Your task to perform on an android device: What's on my calendar today? Image 0: 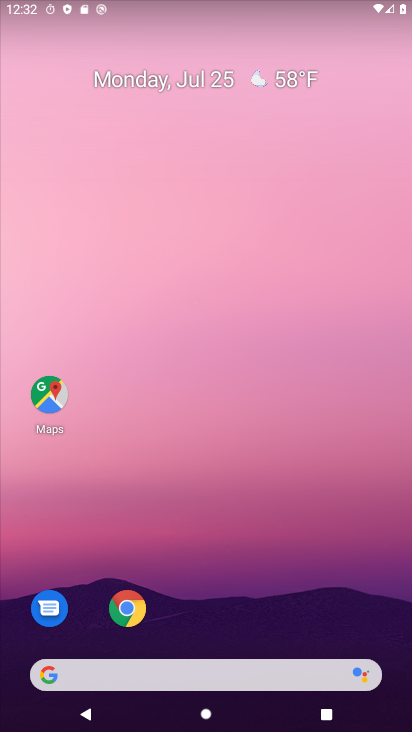
Step 0: drag from (278, 131) to (237, 1)
Your task to perform on an android device: What's on my calendar today? Image 1: 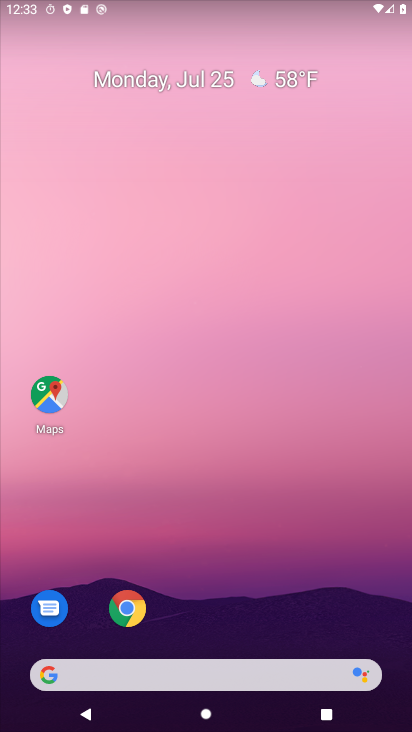
Step 1: drag from (244, 563) to (264, 49)
Your task to perform on an android device: What's on my calendar today? Image 2: 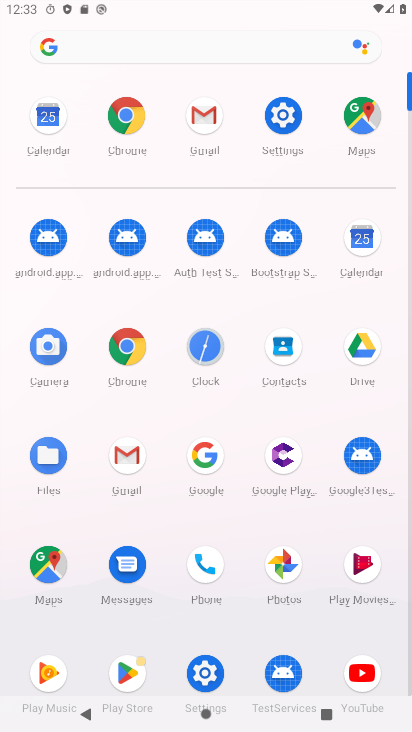
Step 2: click (361, 240)
Your task to perform on an android device: What's on my calendar today? Image 3: 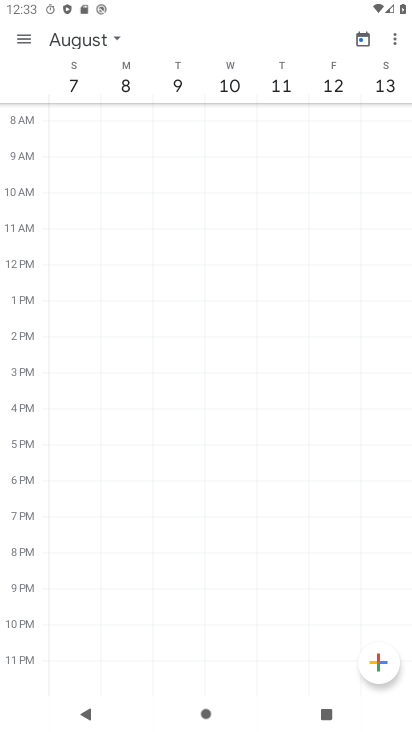
Step 3: click (111, 45)
Your task to perform on an android device: What's on my calendar today? Image 4: 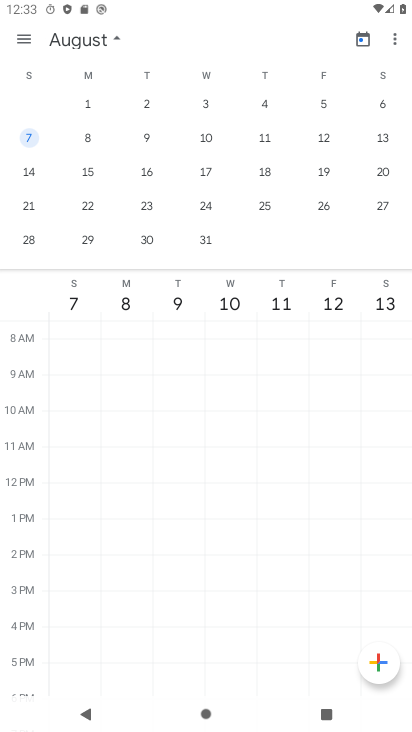
Step 4: drag from (56, 168) to (404, 179)
Your task to perform on an android device: What's on my calendar today? Image 5: 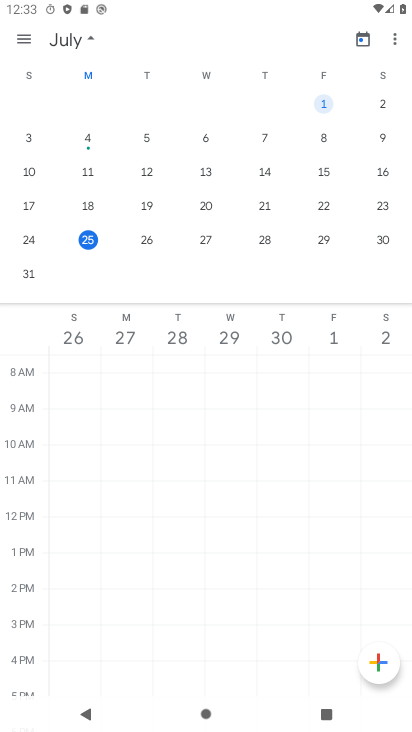
Step 5: click (90, 237)
Your task to perform on an android device: What's on my calendar today? Image 6: 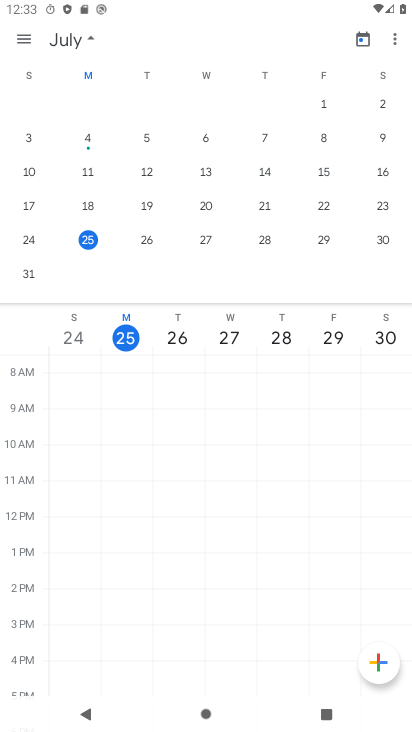
Step 6: task complete